Your task to perform on an android device: turn pop-ups on in chrome Image 0: 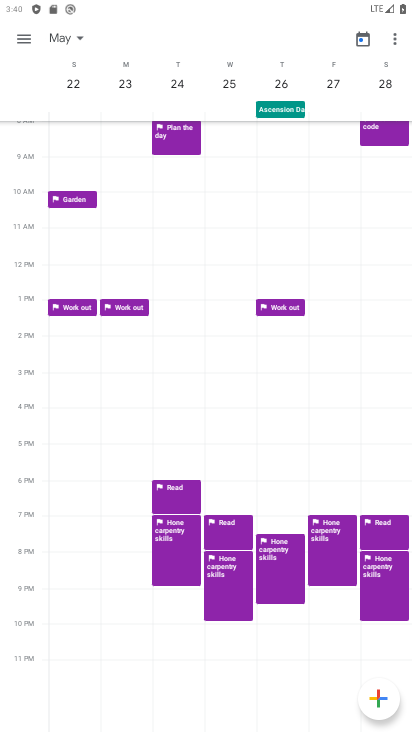
Step 0: press home button
Your task to perform on an android device: turn pop-ups on in chrome Image 1: 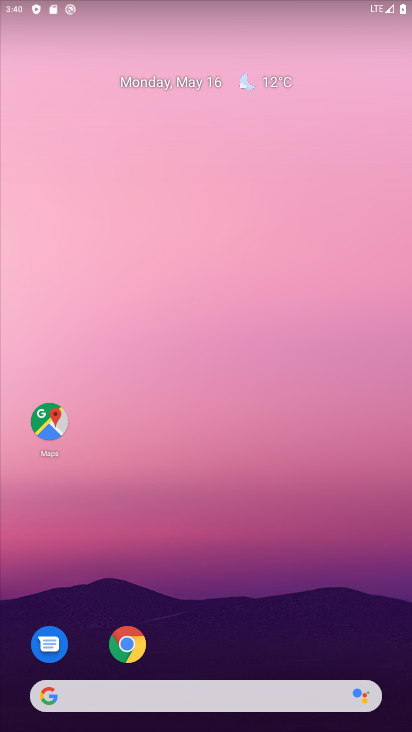
Step 1: click (143, 648)
Your task to perform on an android device: turn pop-ups on in chrome Image 2: 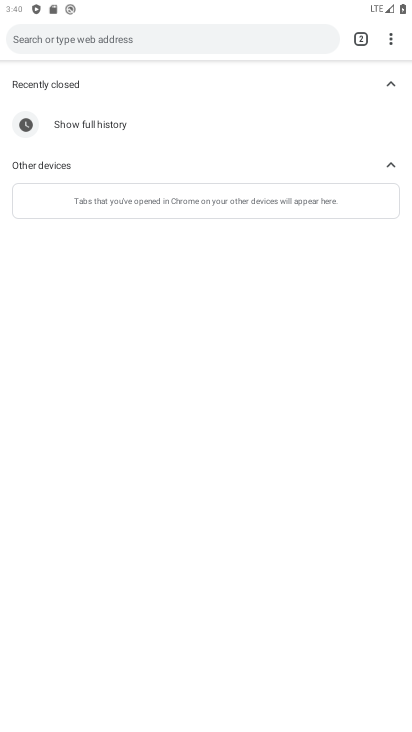
Step 2: click (367, 41)
Your task to perform on an android device: turn pop-ups on in chrome Image 3: 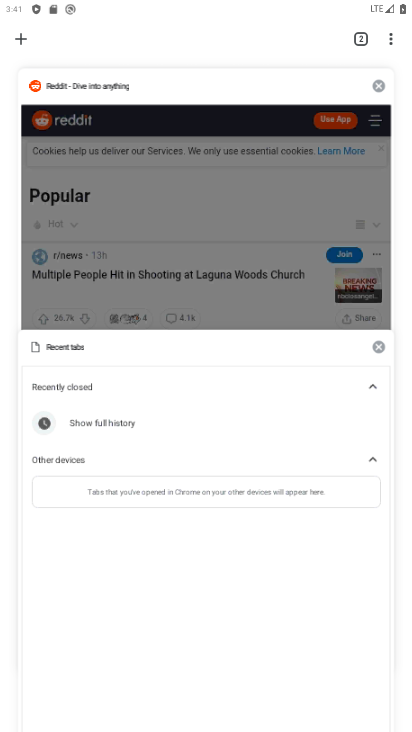
Step 3: click (358, 35)
Your task to perform on an android device: turn pop-ups on in chrome Image 4: 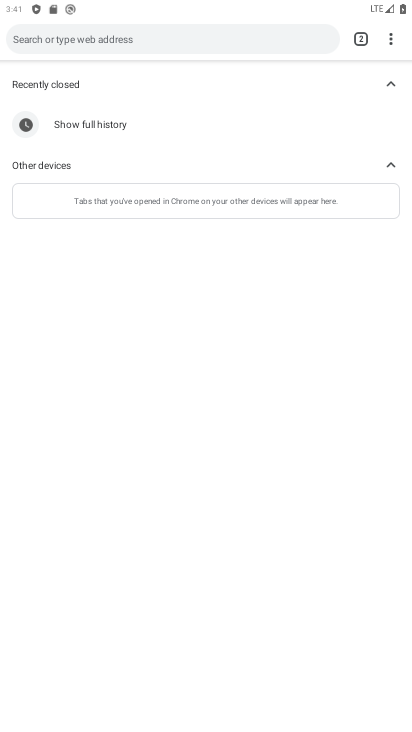
Step 4: click (390, 35)
Your task to perform on an android device: turn pop-ups on in chrome Image 5: 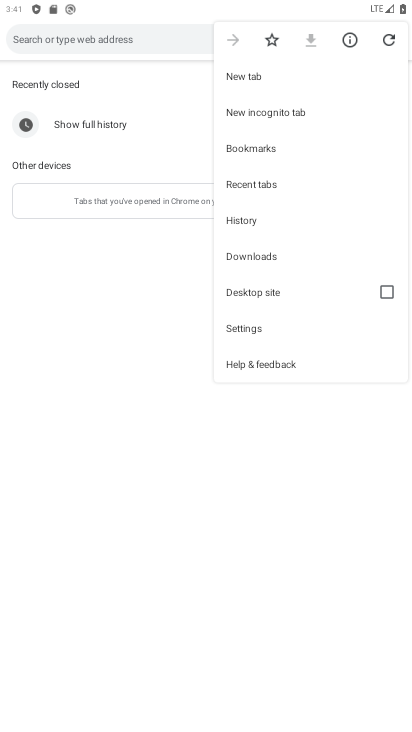
Step 5: click (258, 328)
Your task to perform on an android device: turn pop-ups on in chrome Image 6: 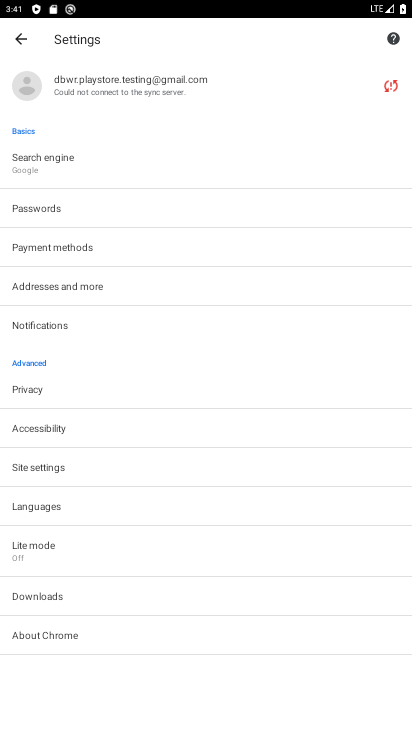
Step 6: click (56, 468)
Your task to perform on an android device: turn pop-ups on in chrome Image 7: 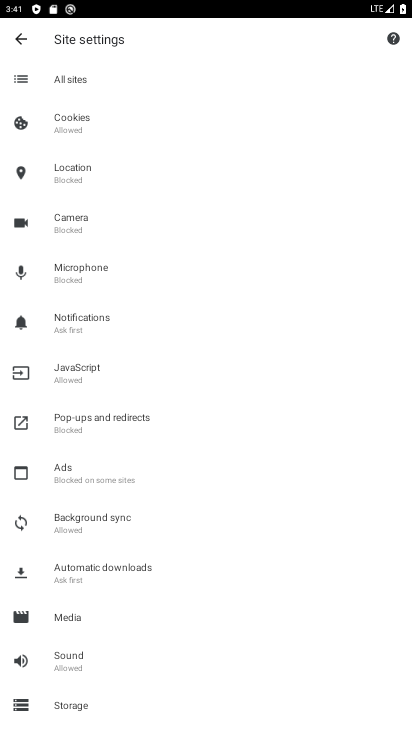
Step 7: click (120, 440)
Your task to perform on an android device: turn pop-ups on in chrome Image 8: 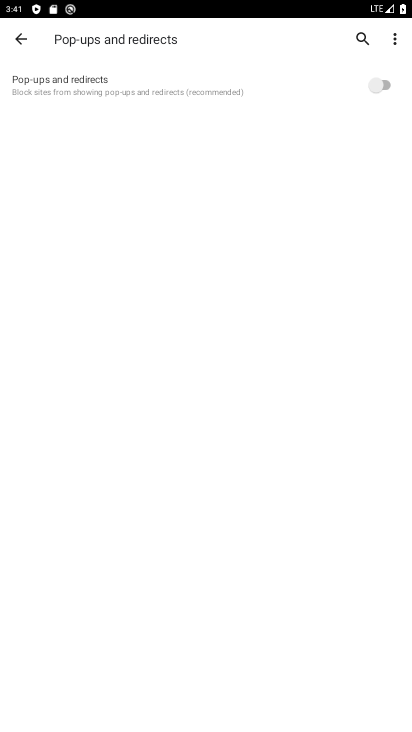
Step 8: click (384, 82)
Your task to perform on an android device: turn pop-ups on in chrome Image 9: 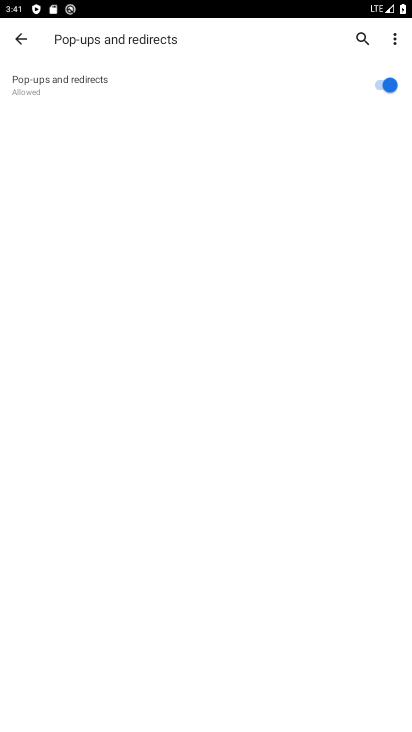
Step 9: task complete